Your task to perform on an android device: Open internet settings Image 0: 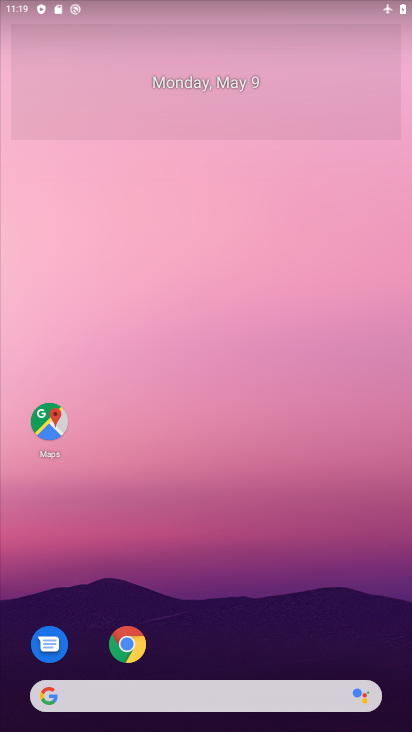
Step 0: drag from (188, 650) to (200, 304)
Your task to perform on an android device: Open internet settings Image 1: 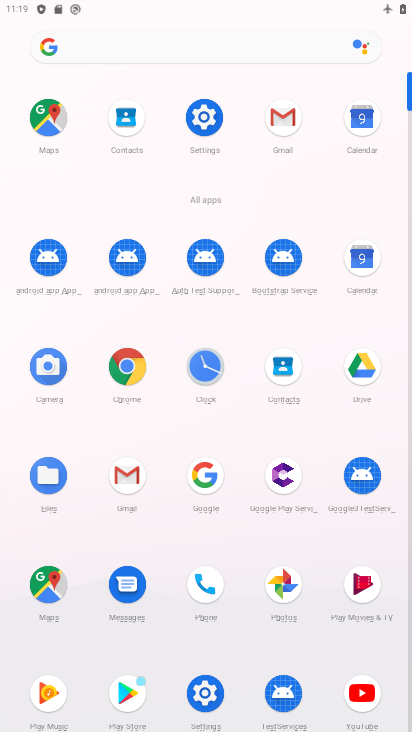
Step 1: click (186, 113)
Your task to perform on an android device: Open internet settings Image 2: 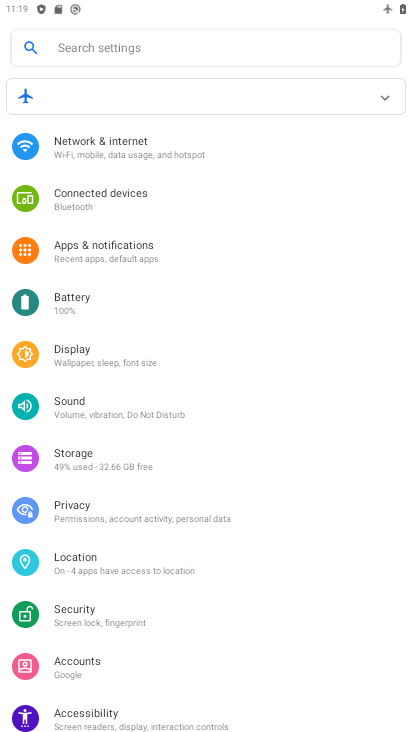
Step 2: click (177, 157)
Your task to perform on an android device: Open internet settings Image 3: 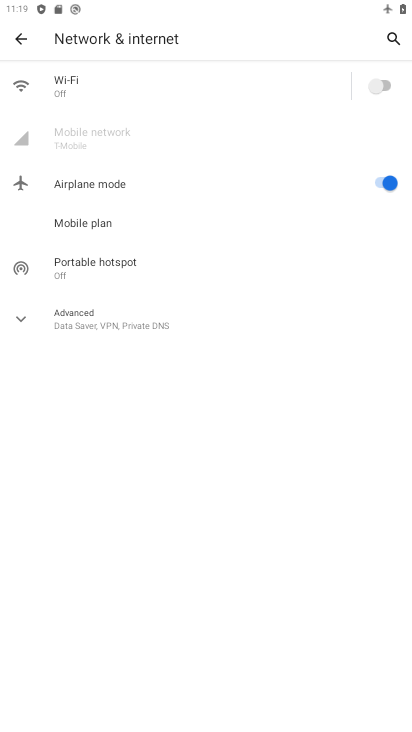
Step 3: click (107, 124)
Your task to perform on an android device: Open internet settings Image 4: 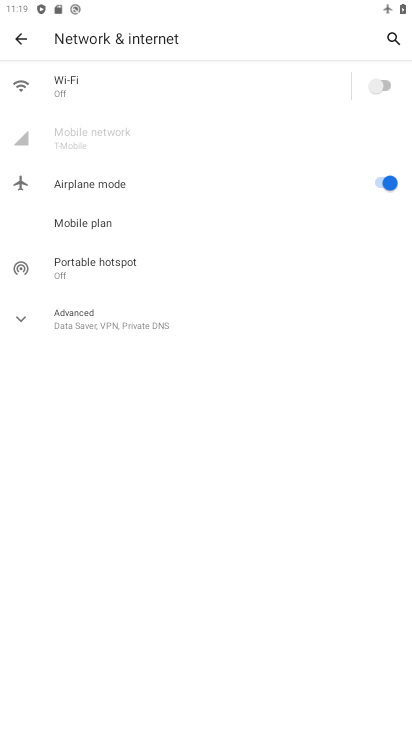
Step 4: task complete